Your task to perform on an android device: open the mobile data screen to see how much data has been used Image 0: 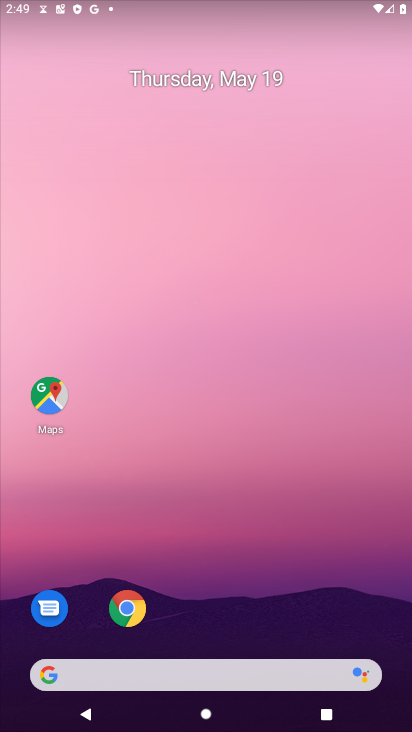
Step 0: drag from (296, 616) to (290, 121)
Your task to perform on an android device: open the mobile data screen to see how much data has been used Image 1: 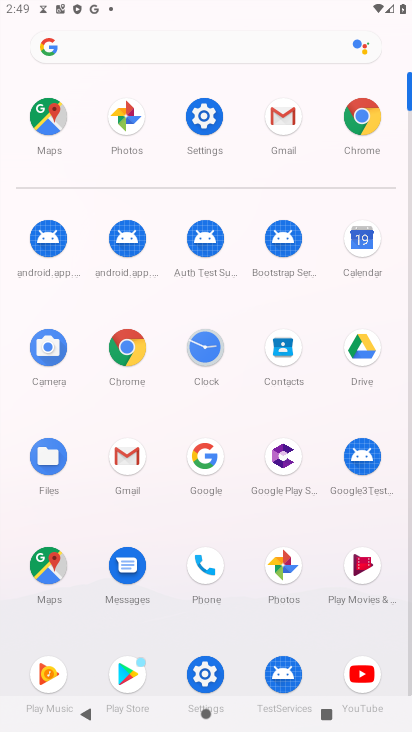
Step 1: click (218, 112)
Your task to perform on an android device: open the mobile data screen to see how much data has been used Image 2: 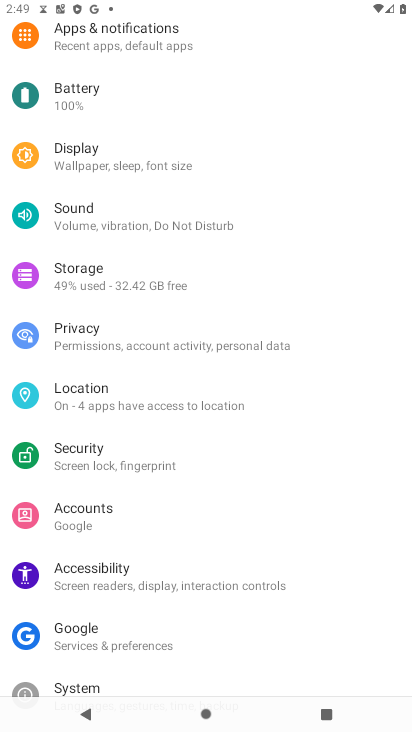
Step 2: drag from (158, 85) to (171, 585)
Your task to perform on an android device: open the mobile data screen to see how much data has been used Image 3: 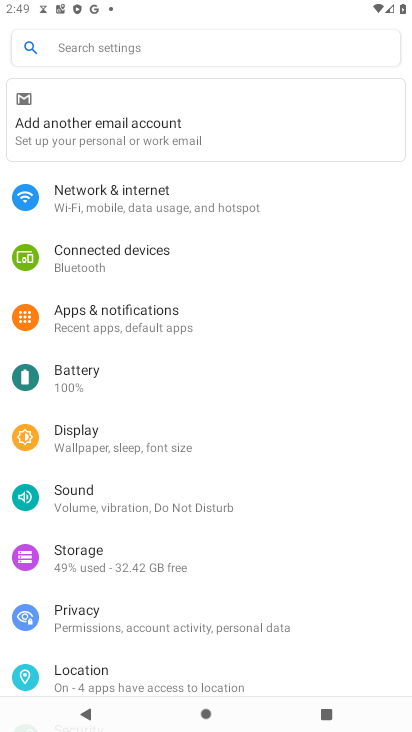
Step 3: click (181, 195)
Your task to perform on an android device: open the mobile data screen to see how much data has been used Image 4: 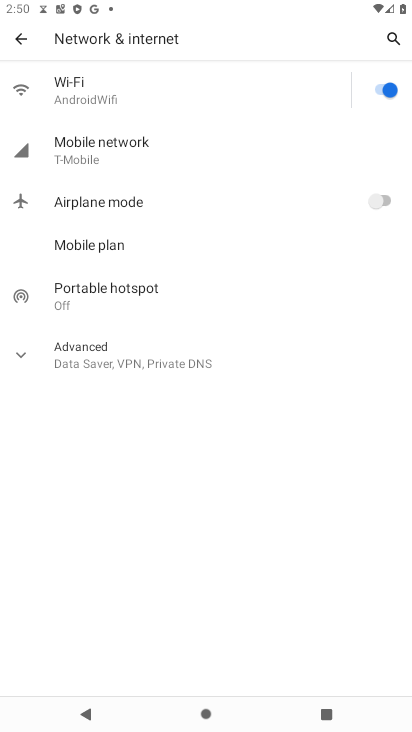
Step 4: click (161, 148)
Your task to perform on an android device: open the mobile data screen to see how much data has been used Image 5: 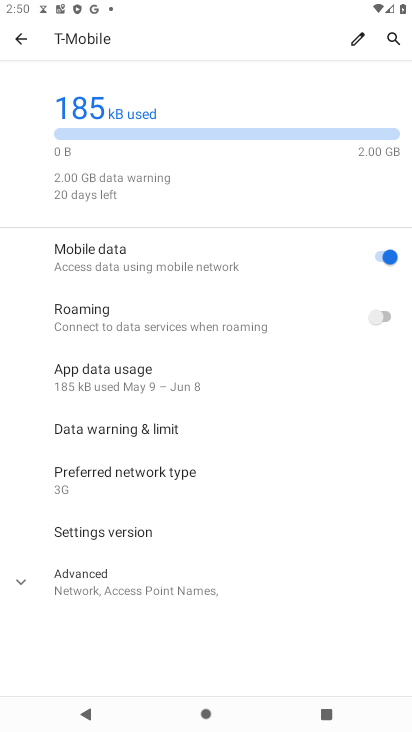
Step 5: task complete